Your task to perform on an android device: Open Wikipedia Image 0: 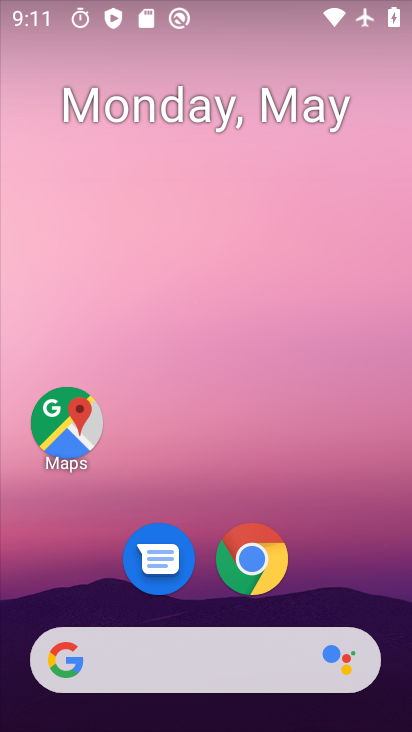
Step 0: click (251, 550)
Your task to perform on an android device: Open Wikipedia Image 1: 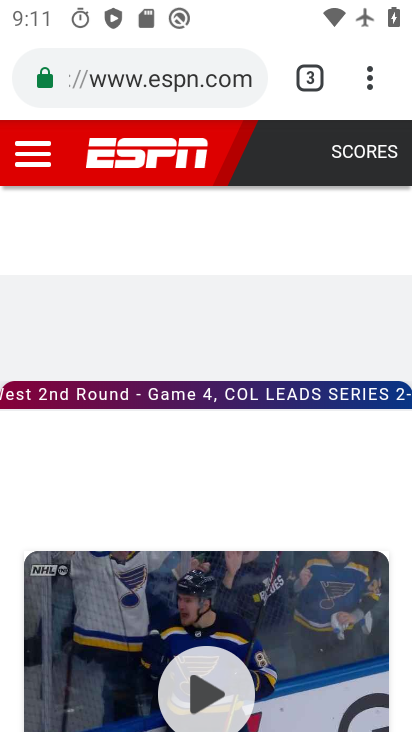
Step 1: click (169, 73)
Your task to perform on an android device: Open Wikipedia Image 2: 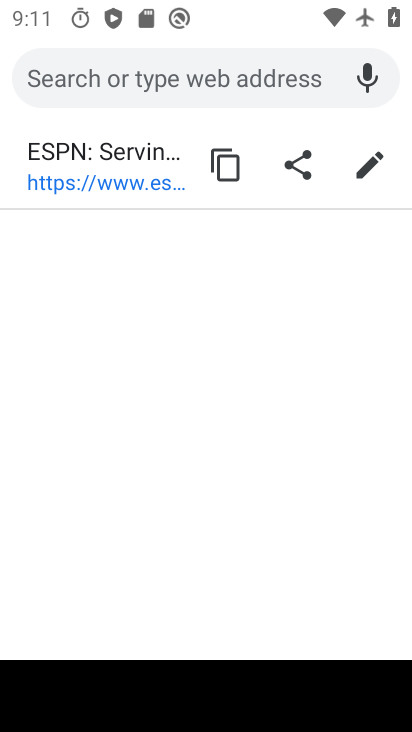
Step 2: type "wikipedia"
Your task to perform on an android device: Open Wikipedia Image 3: 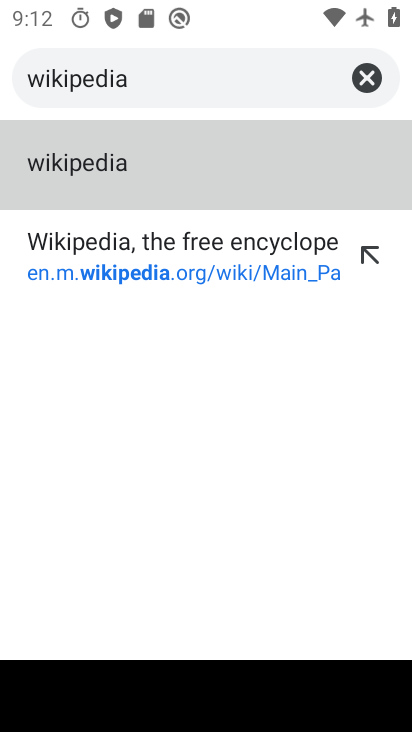
Step 3: click (69, 165)
Your task to perform on an android device: Open Wikipedia Image 4: 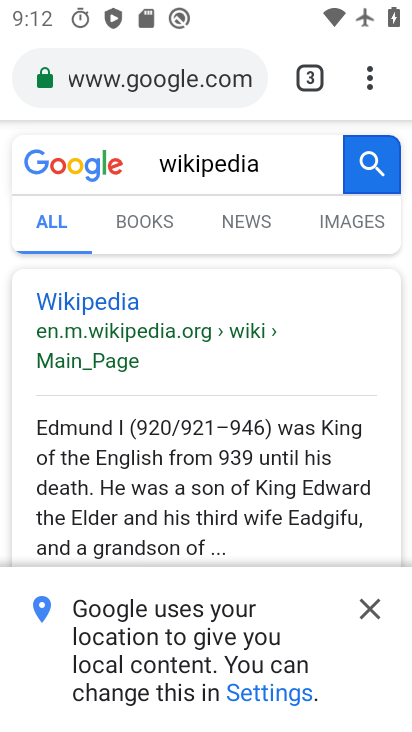
Step 4: click (81, 294)
Your task to perform on an android device: Open Wikipedia Image 5: 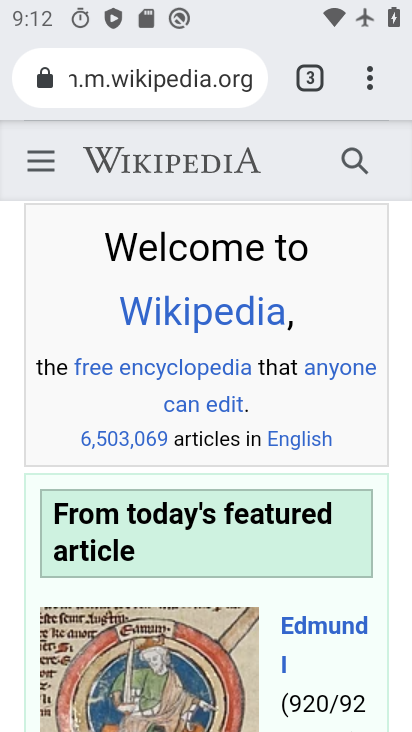
Step 5: task complete